Your task to perform on an android device: See recent photos Image 0: 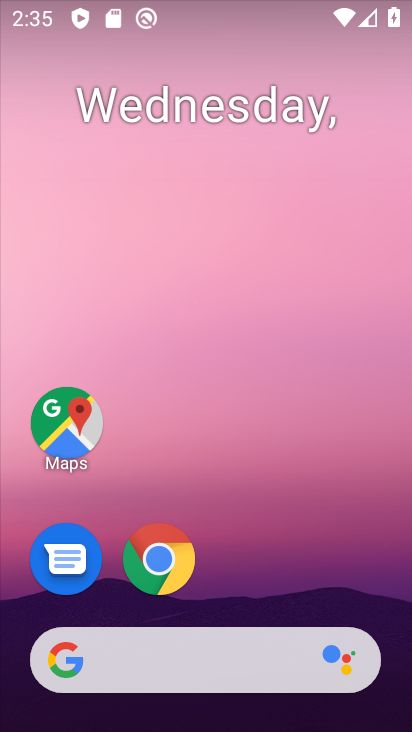
Step 0: drag from (232, 536) to (347, 21)
Your task to perform on an android device: See recent photos Image 1: 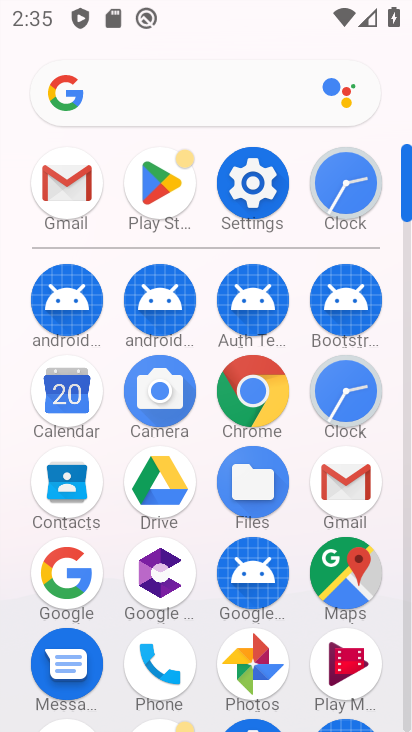
Step 1: click (251, 665)
Your task to perform on an android device: See recent photos Image 2: 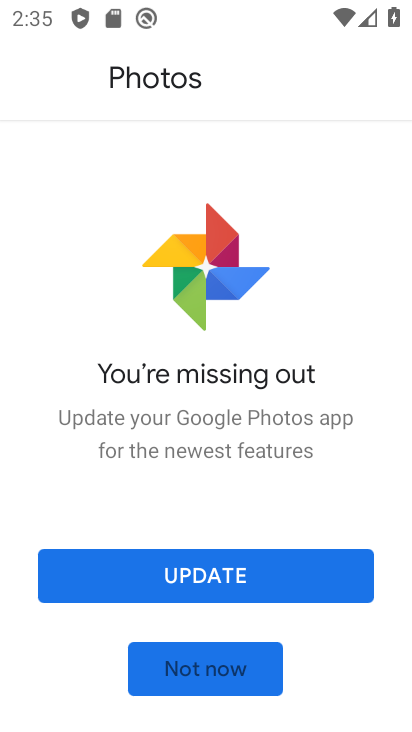
Step 2: click (168, 674)
Your task to perform on an android device: See recent photos Image 3: 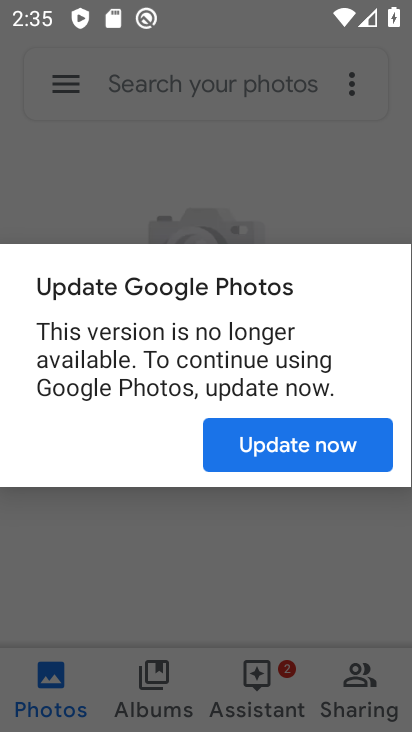
Step 3: click (273, 455)
Your task to perform on an android device: See recent photos Image 4: 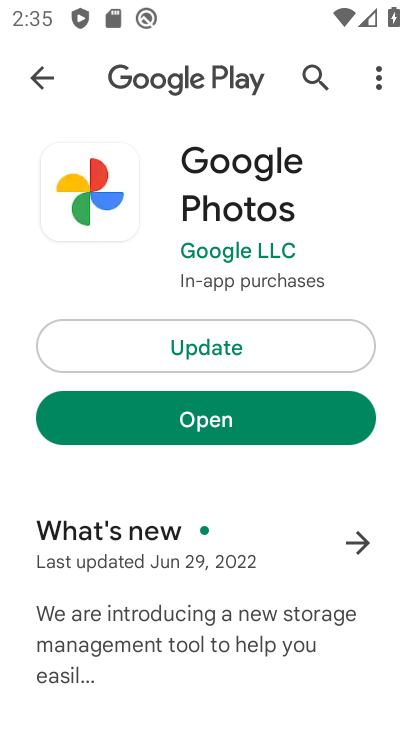
Step 4: click (172, 403)
Your task to perform on an android device: See recent photos Image 5: 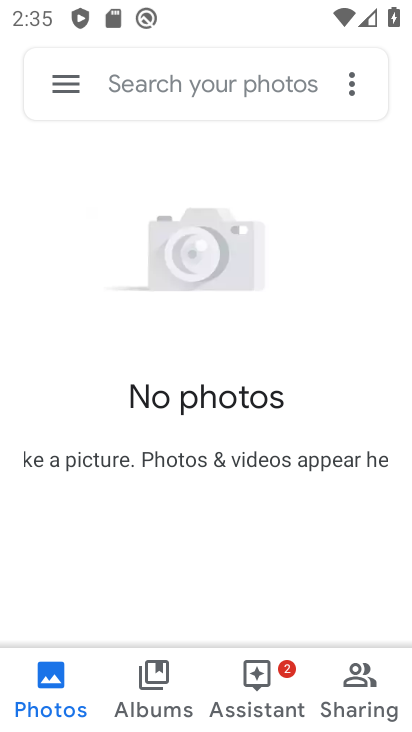
Step 5: click (52, 702)
Your task to perform on an android device: See recent photos Image 6: 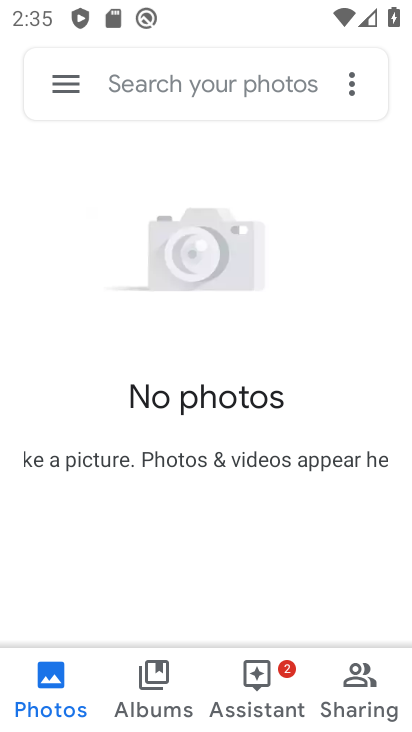
Step 6: task complete